Your task to perform on an android device: check data usage Image 0: 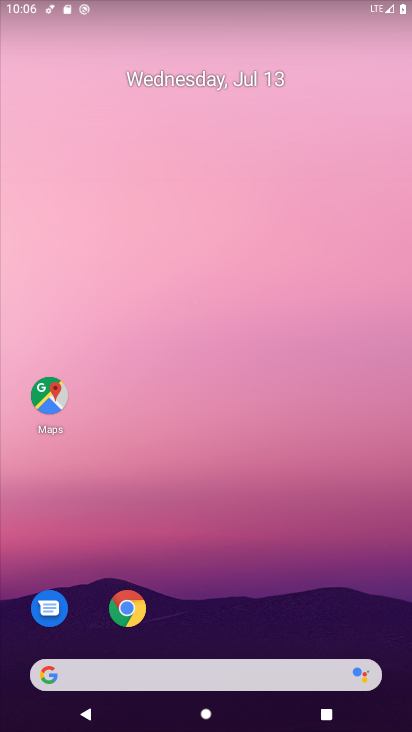
Step 0: drag from (237, 558) to (189, 101)
Your task to perform on an android device: check data usage Image 1: 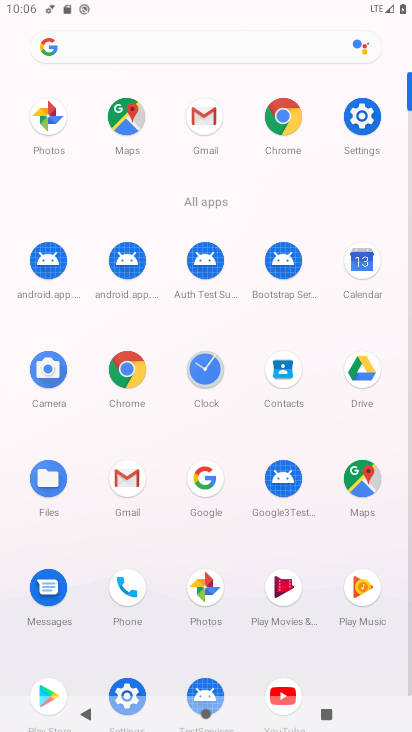
Step 1: click (360, 118)
Your task to perform on an android device: check data usage Image 2: 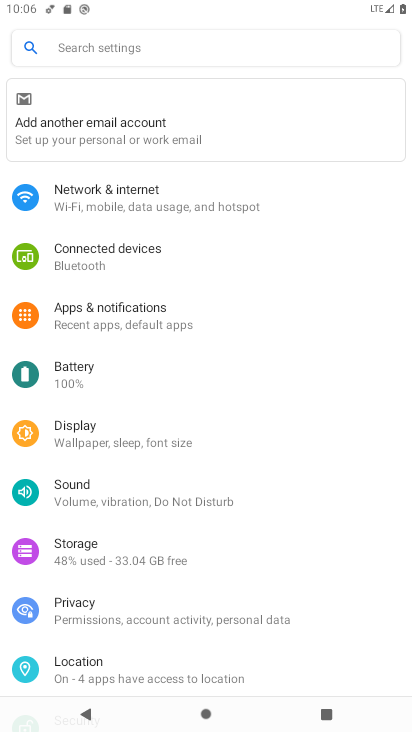
Step 2: click (108, 191)
Your task to perform on an android device: check data usage Image 3: 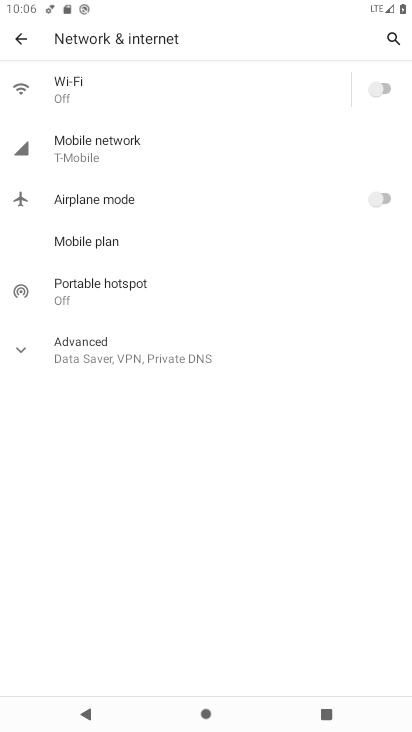
Step 3: click (78, 134)
Your task to perform on an android device: check data usage Image 4: 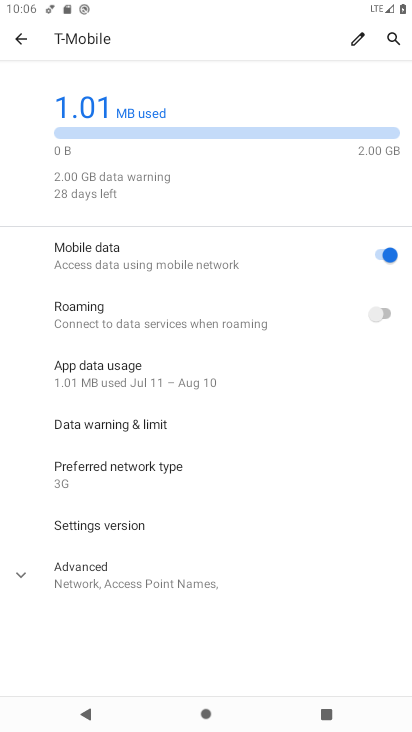
Step 4: task complete